Your task to perform on an android device: View the shopping cart on target.com. Search for rayovac triple a on target.com, select the first entry, and add it to the cart. Image 0: 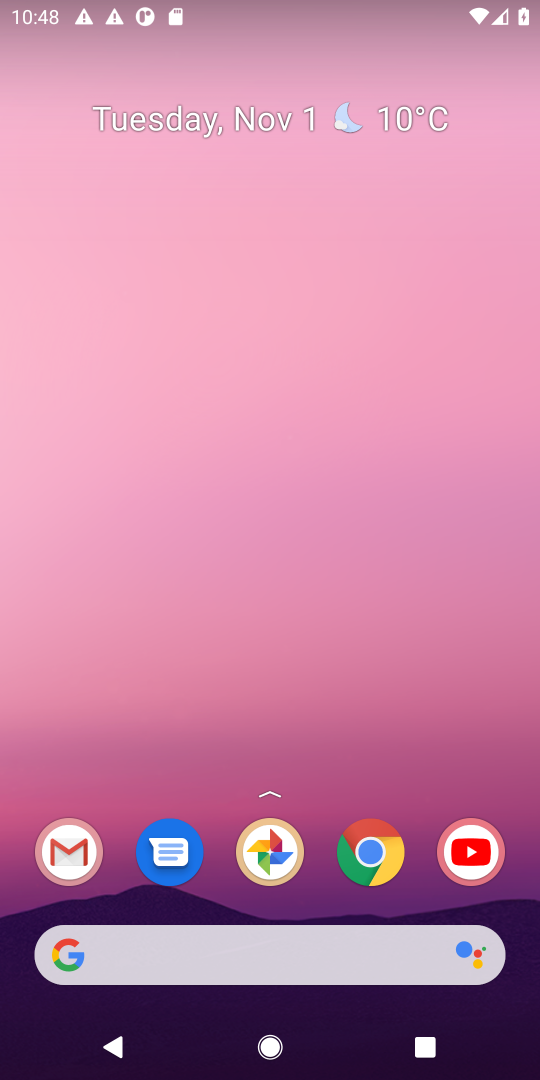
Step 0: click (73, 943)
Your task to perform on an android device: View the shopping cart on target.com. Search for rayovac triple a on target.com, select the first entry, and add it to the cart. Image 1: 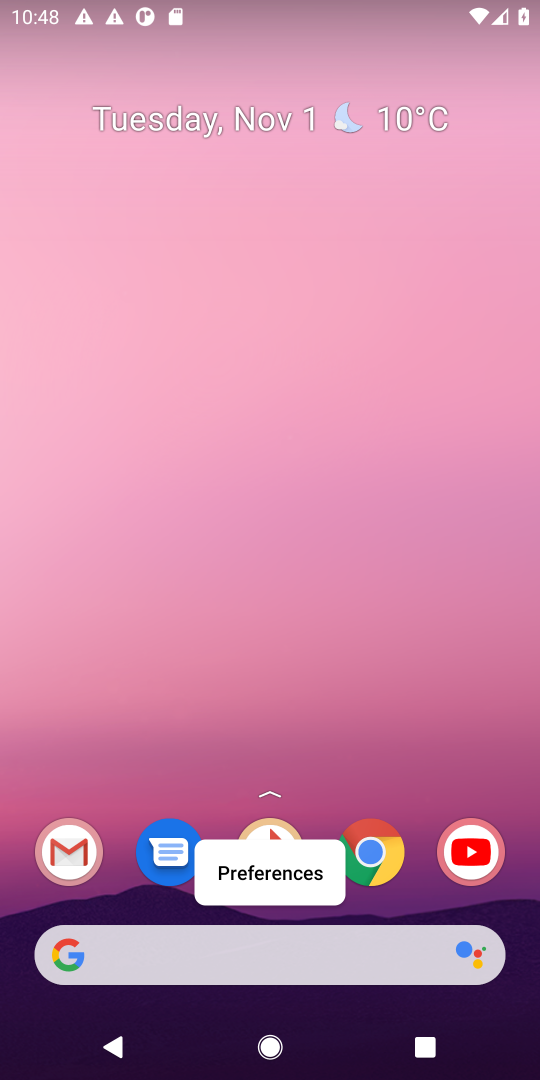
Step 1: click (82, 953)
Your task to perform on an android device: View the shopping cart on target.com. Search for rayovac triple a on target.com, select the first entry, and add it to the cart. Image 2: 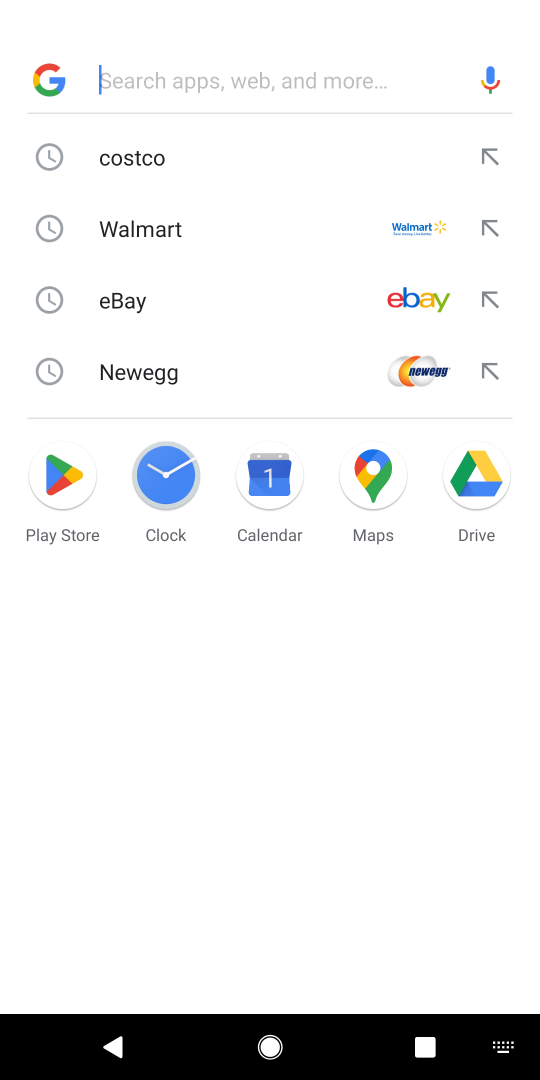
Step 2: type " target.com"
Your task to perform on an android device: View the shopping cart on target.com. Search for rayovac triple a on target.com, select the first entry, and add it to the cart. Image 3: 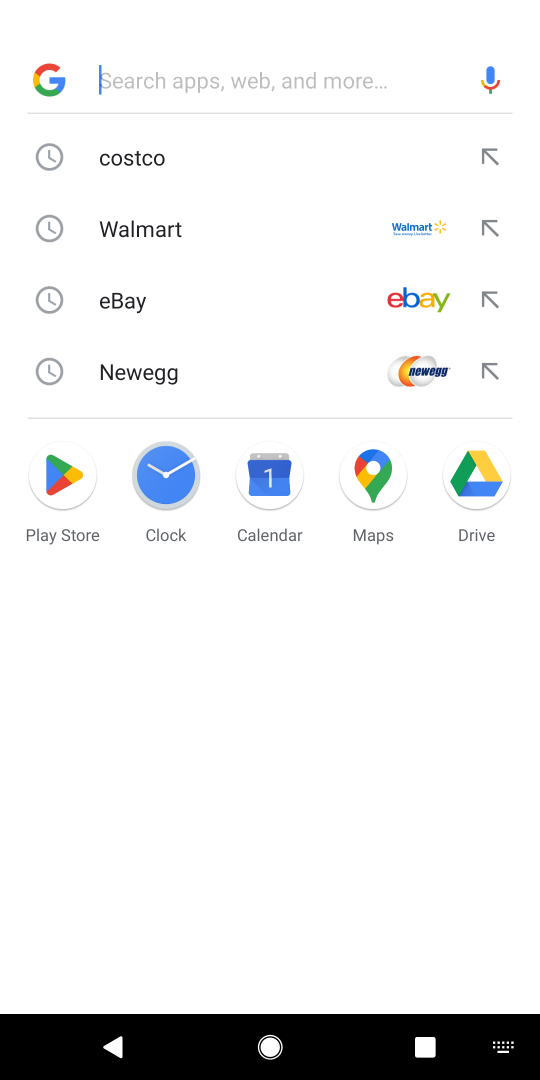
Step 3: click (175, 79)
Your task to perform on an android device: View the shopping cart on target.com. Search for rayovac triple a on target.com, select the first entry, and add it to the cart. Image 4: 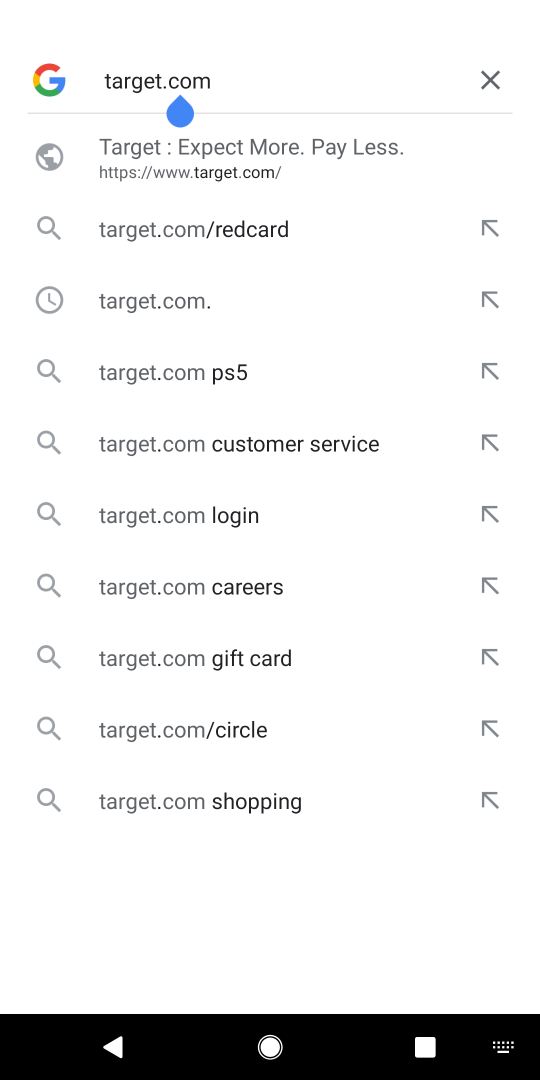
Step 4: press enter
Your task to perform on an android device: View the shopping cart on target.com. Search for rayovac triple a on target.com, select the first entry, and add it to the cart. Image 5: 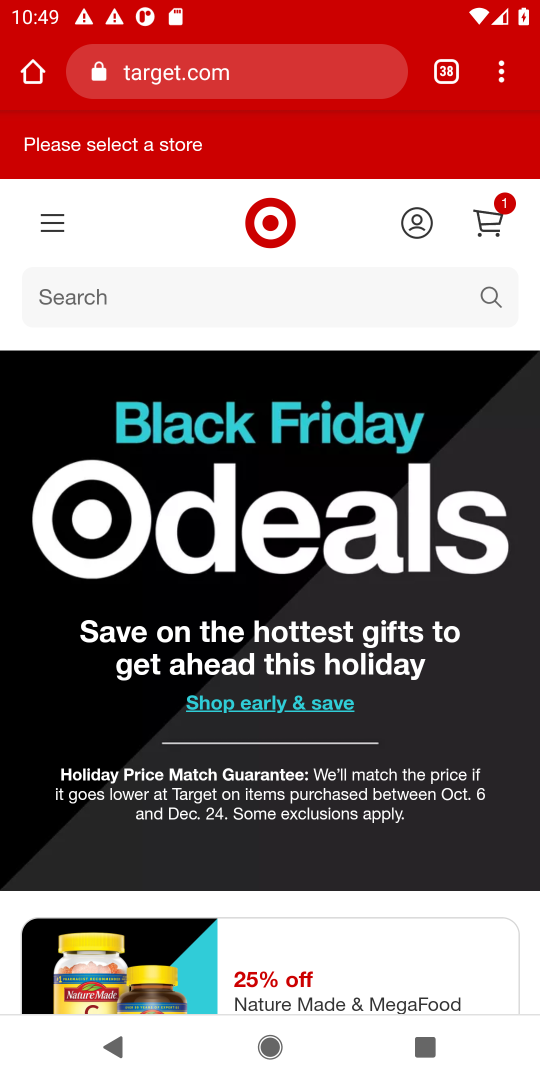
Step 5: click (152, 297)
Your task to perform on an android device: View the shopping cart on target.com. Search for rayovac triple a on target.com, select the first entry, and add it to the cart. Image 6: 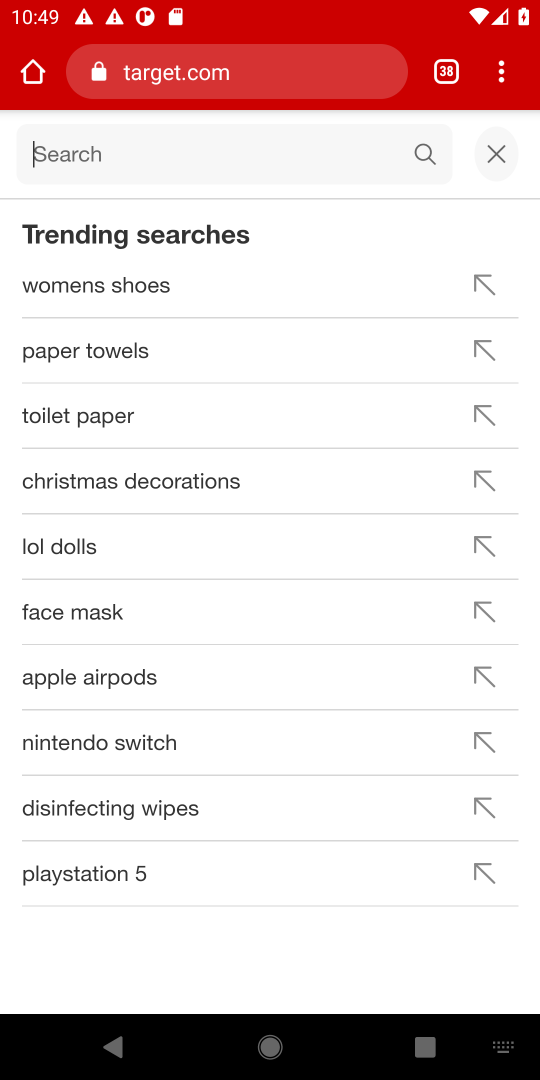
Step 6: type "rayovac triple a"
Your task to perform on an android device: View the shopping cart on target.com. Search for rayovac triple a on target.com, select the first entry, and add it to the cart. Image 7: 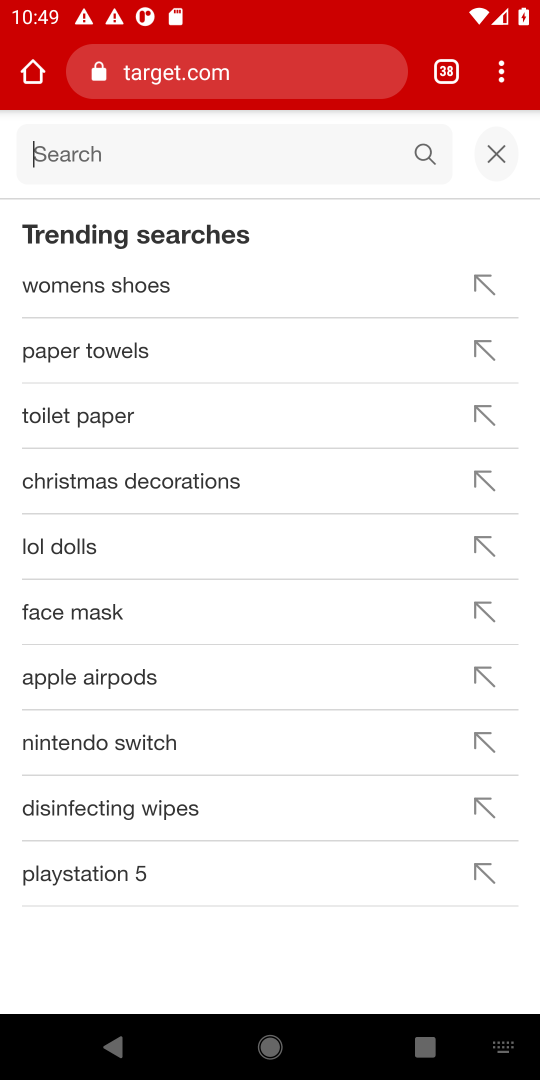
Step 7: click (89, 154)
Your task to perform on an android device: View the shopping cart on target.com. Search for rayovac triple a on target.com, select the first entry, and add it to the cart. Image 8: 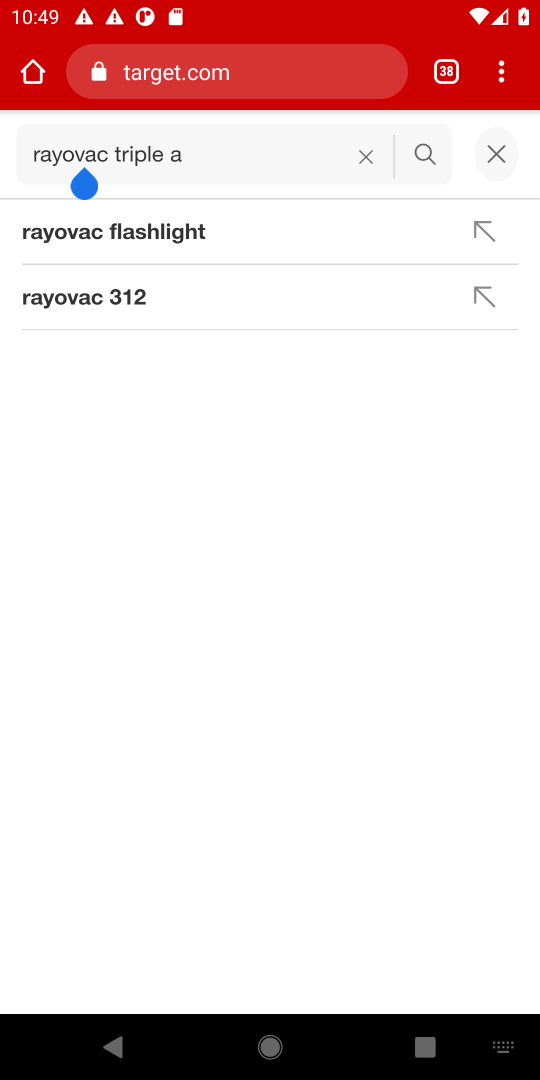
Step 8: click (425, 150)
Your task to perform on an android device: View the shopping cart on target.com. Search for rayovac triple a on target.com, select the first entry, and add it to the cart. Image 9: 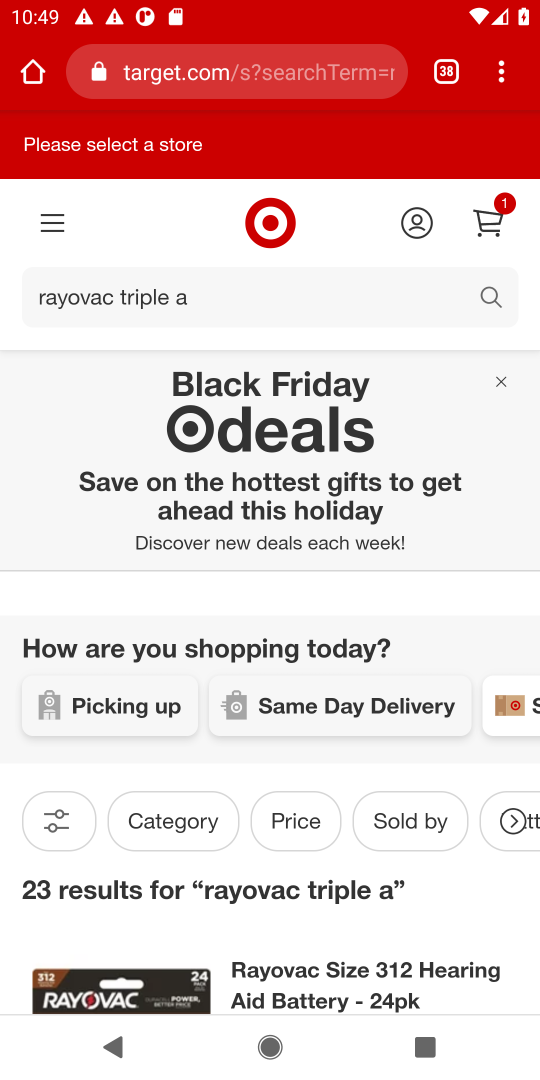
Step 9: task complete